Your task to perform on an android device: Open settings on Google Maps Image 0: 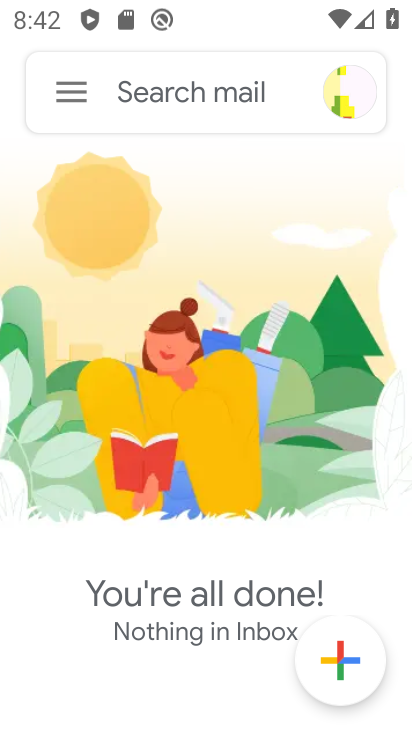
Step 0: press back button
Your task to perform on an android device: Open settings on Google Maps Image 1: 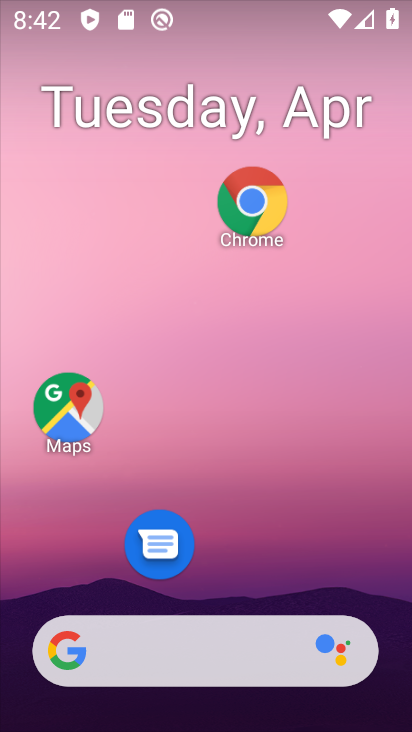
Step 1: click (66, 393)
Your task to perform on an android device: Open settings on Google Maps Image 2: 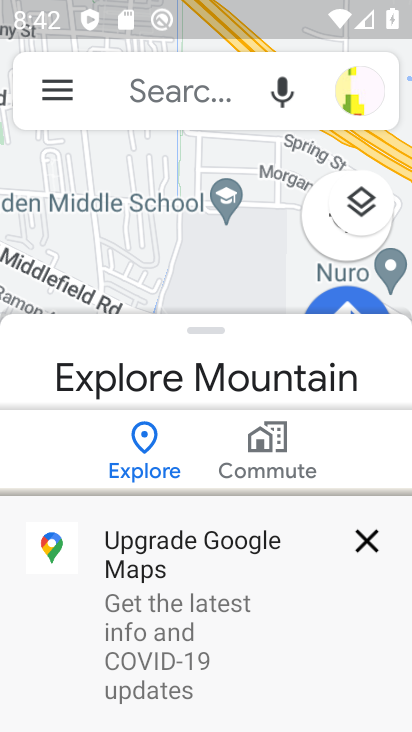
Step 2: click (68, 89)
Your task to perform on an android device: Open settings on Google Maps Image 3: 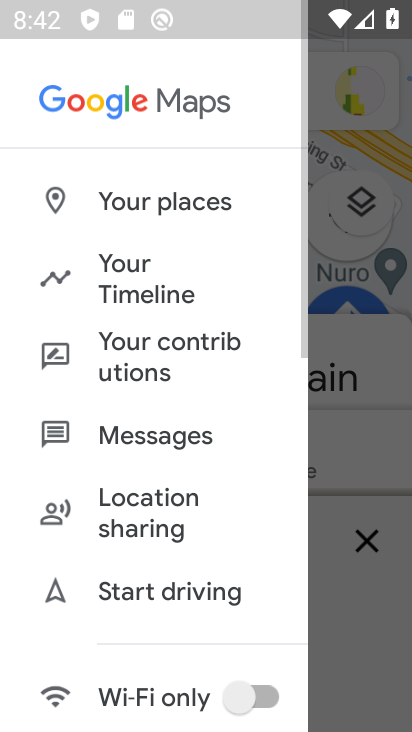
Step 3: drag from (134, 654) to (210, 11)
Your task to perform on an android device: Open settings on Google Maps Image 4: 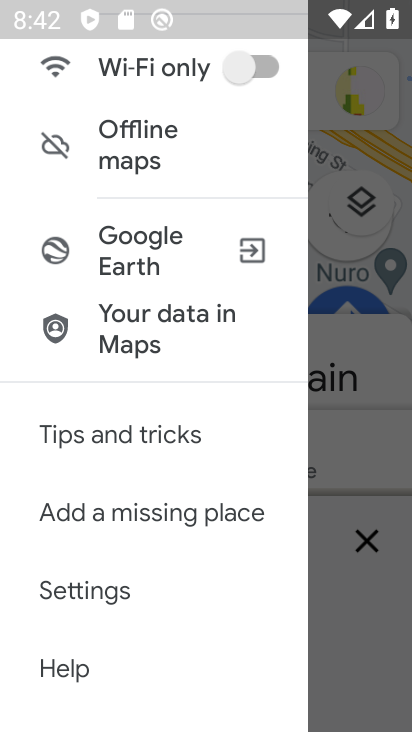
Step 4: click (122, 589)
Your task to perform on an android device: Open settings on Google Maps Image 5: 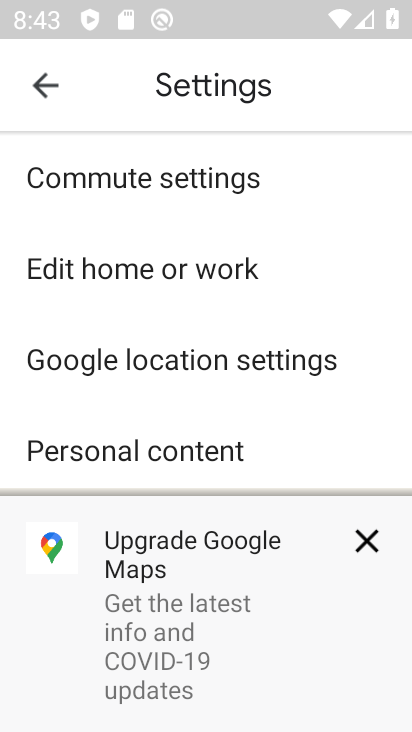
Step 5: task complete